Your task to perform on an android device: See recent photos Image 0: 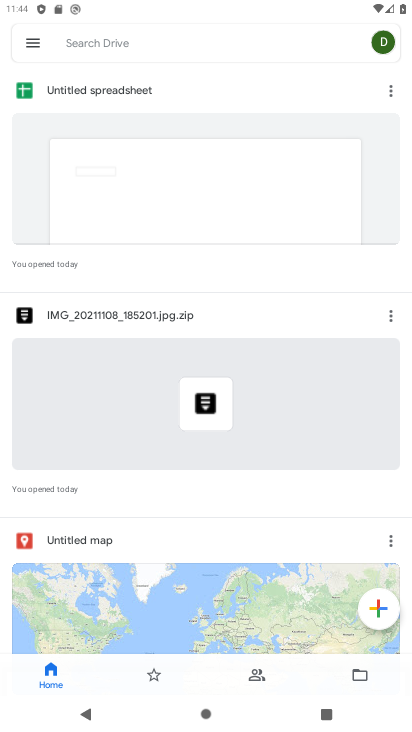
Step 0: press back button
Your task to perform on an android device: See recent photos Image 1: 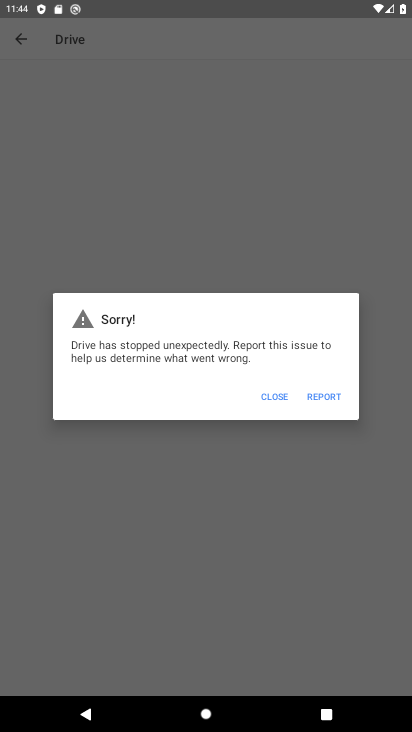
Step 1: press home button
Your task to perform on an android device: See recent photos Image 2: 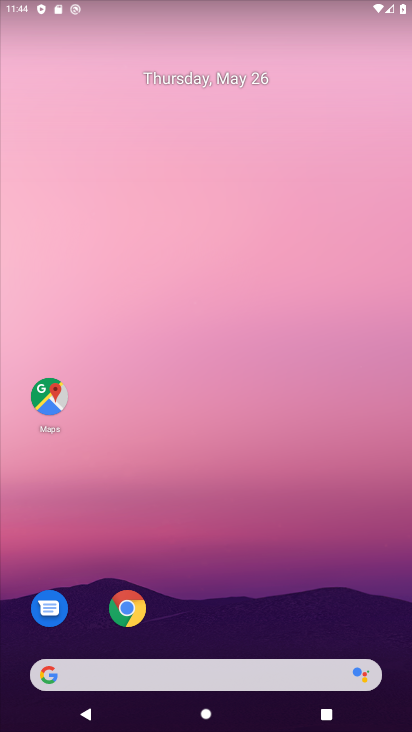
Step 2: drag from (262, 562) to (212, 49)
Your task to perform on an android device: See recent photos Image 3: 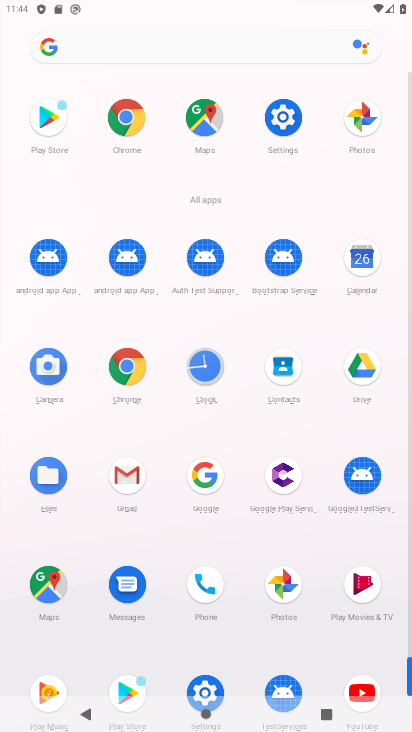
Step 3: drag from (18, 600) to (26, 231)
Your task to perform on an android device: See recent photos Image 4: 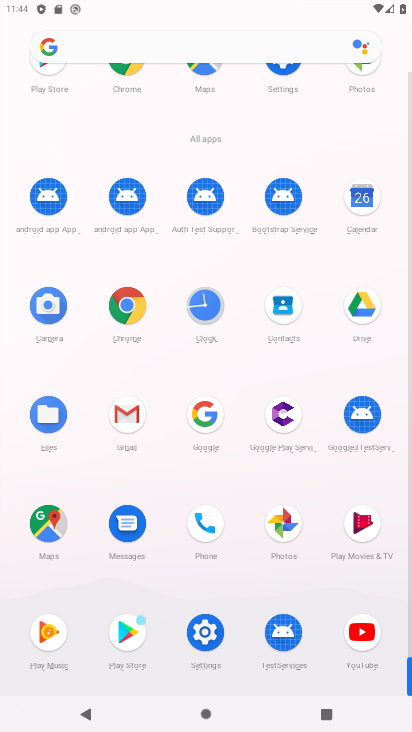
Step 4: click (283, 509)
Your task to perform on an android device: See recent photos Image 5: 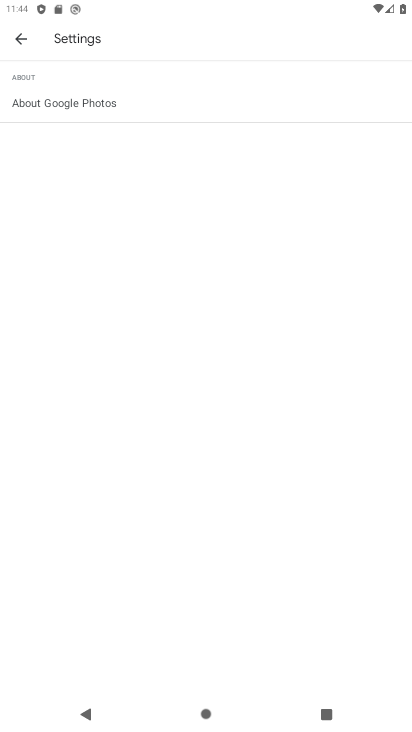
Step 5: click (16, 41)
Your task to perform on an android device: See recent photos Image 6: 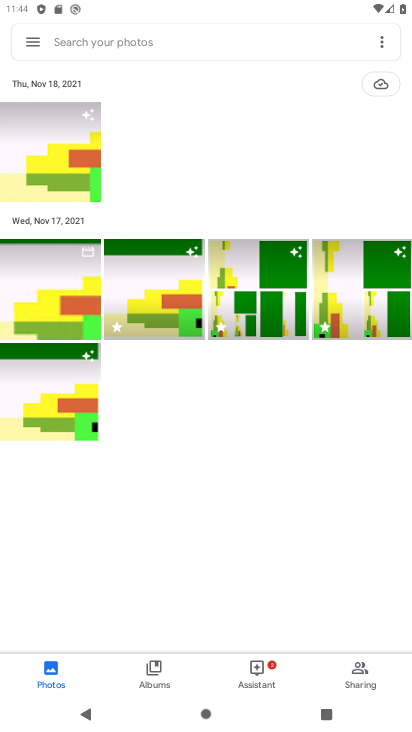
Step 6: task complete